Your task to perform on an android device: Search for pizza restaurants on Maps Image 0: 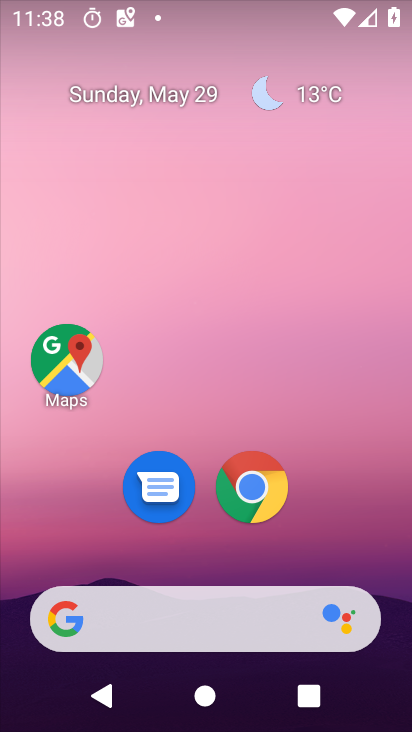
Step 0: click (64, 361)
Your task to perform on an android device: Search for pizza restaurants on Maps Image 1: 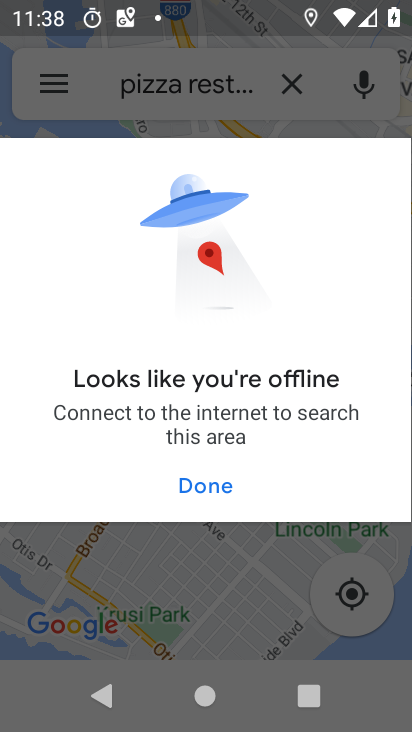
Step 1: click (218, 489)
Your task to perform on an android device: Search for pizza restaurants on Maps Image 2: 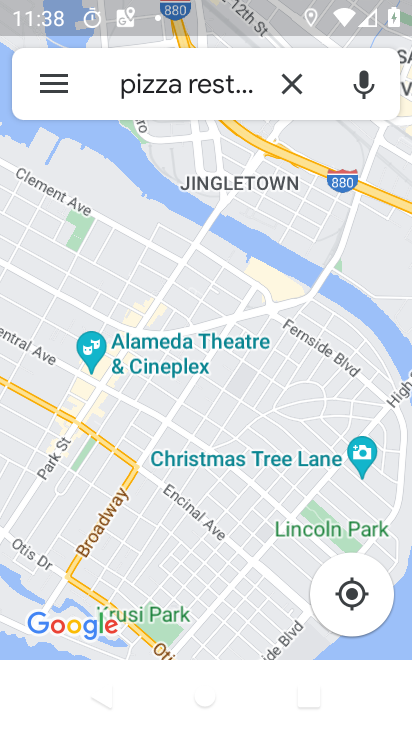
Step 2: click (293, 83)
Your task to perform on an android device: Search for pizza restaurants on Maps Image 3: 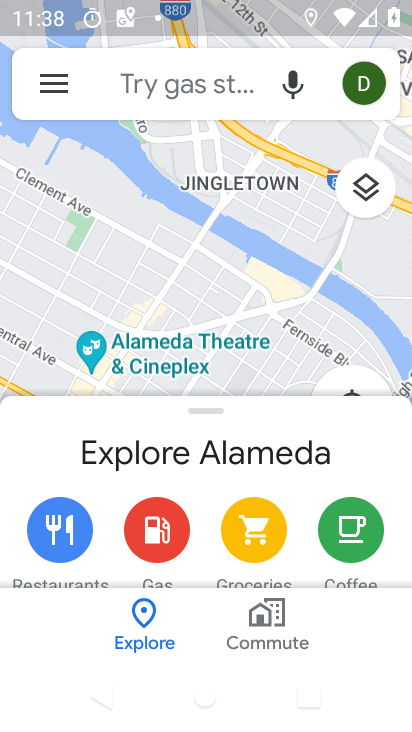
Step 3: click (136, 95)
Your task to perform on an android device: Search for pizza restaurants on Maps Image 4: 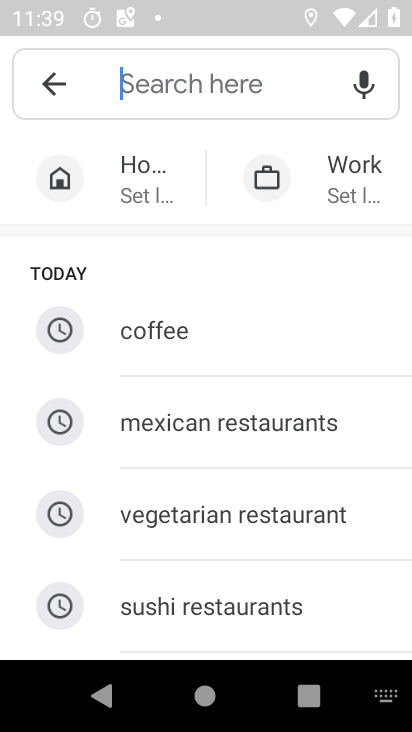
Step 4: type "pizza restaurants"
Your task to perform on an android device: Search for pizza restaurants on Maps Image 5: 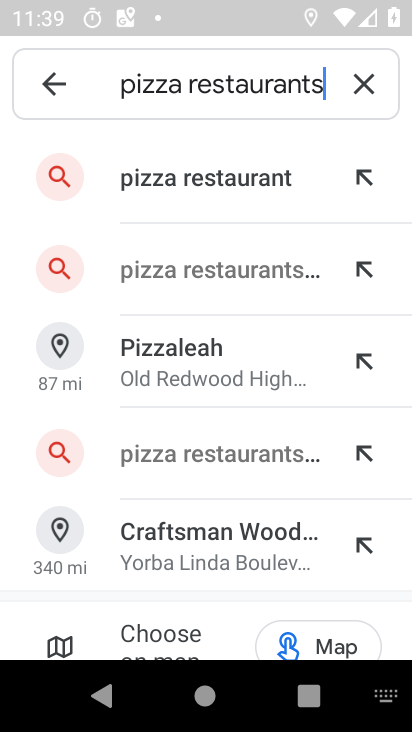
Step 5: click (176, 171)
Your task to perform on an android device: Search for pizza restaurants on Maps Image 6: 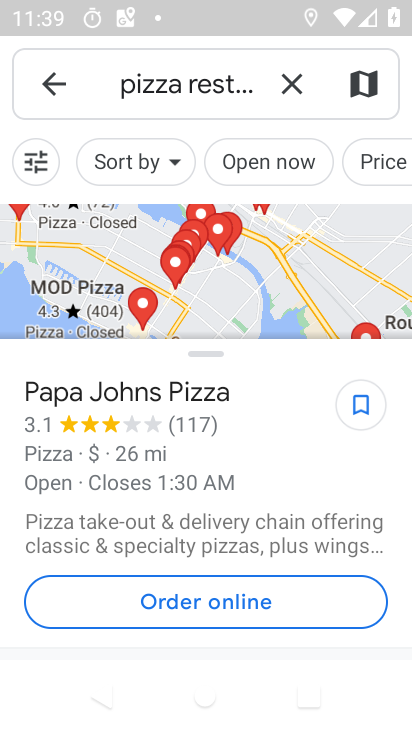
Step 6: task complete